Your task to perform on an android device: open app "Cash App" (install if not already installed) Image 0: 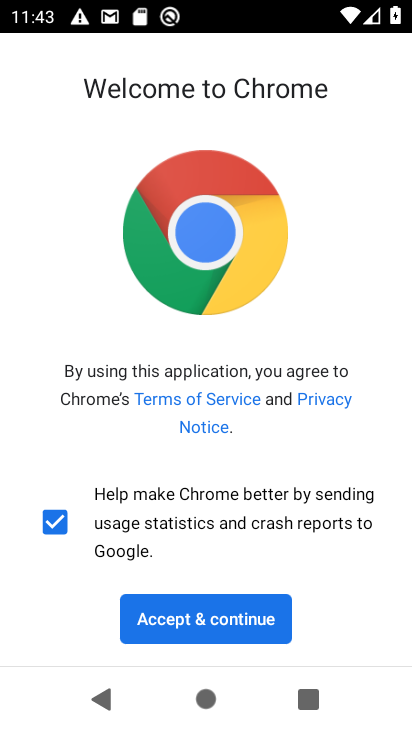
Step 0: press home button
Your task to perform on an android device: open app "Cash App" (install if not already installed) Image 1: 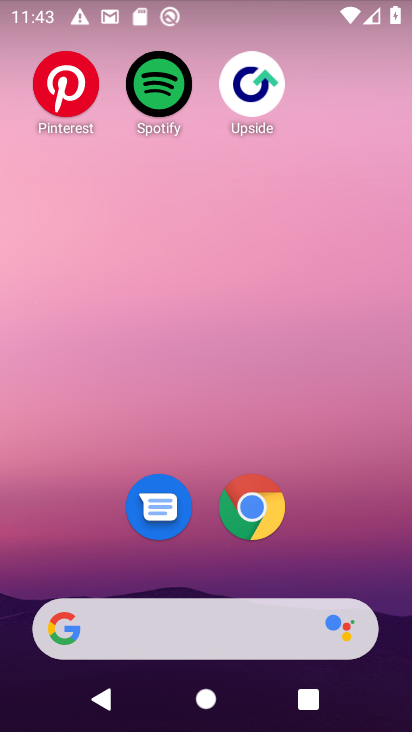
Step 1: drag from (198, 570) to (182, 1)
Your task to perform on an android device: open app "Cash App" (install if not already installed) Image 2: 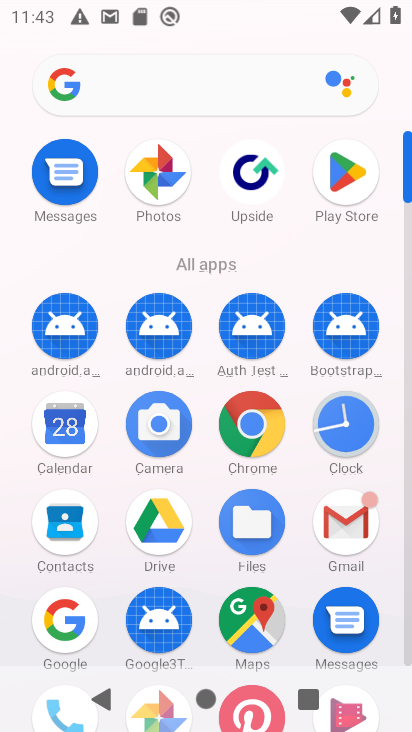
Step 2: click (347, 206)
Your task to perform on an android device: open app "Cash App" (install if not already installed) Image 3: 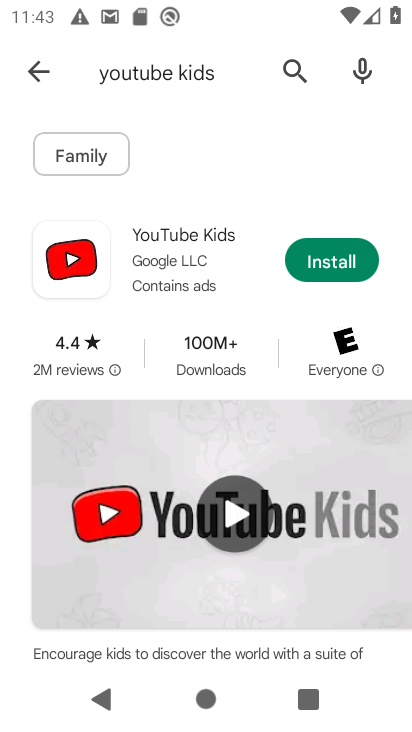
Step 3: click (175, 66)
Your task to perform on an android device: open app "Cash App" (install if not already installed) Image 4: 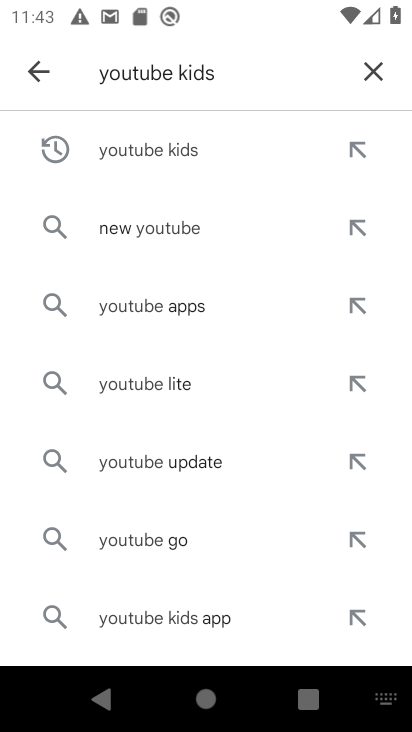
Step 4: click (377, 75)
Your task to perform on an android device: open app "Cash App" (install if not already installed) Image 5: 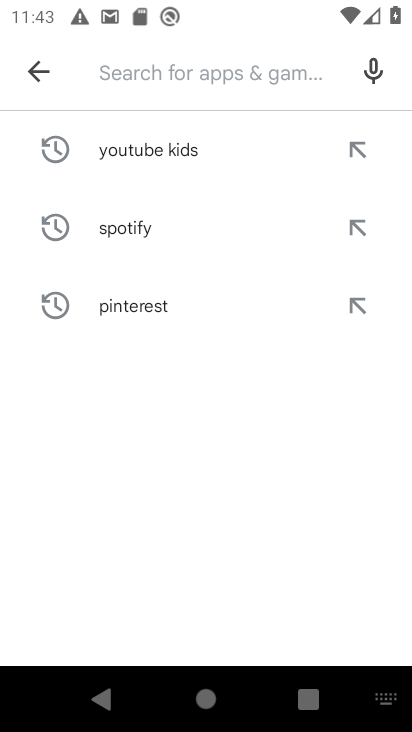
Step 5: type "cash App"
Your task to perform on an android device: open app "Cash App" (install if not already installed) Image 6: 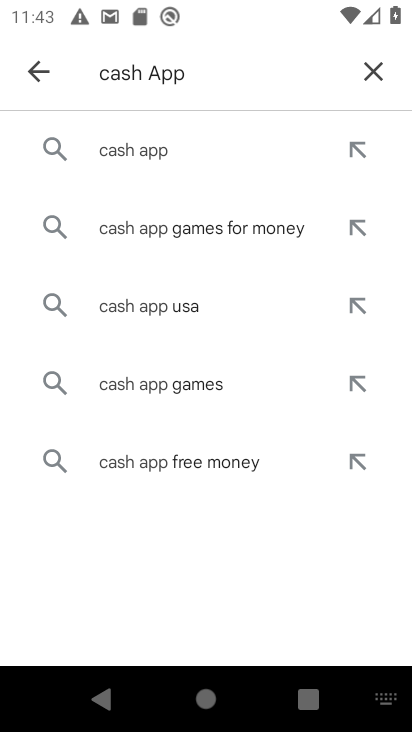
Step 6: click (180, 158)
Your task to perform on an android device: open app "Cash App" (install if not already installed) Image 7: 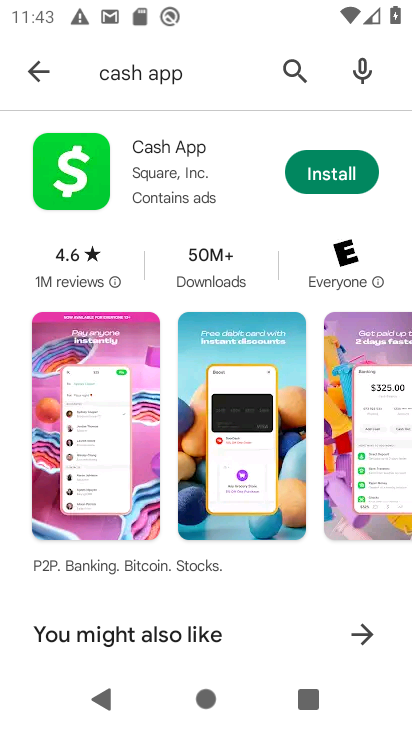
Step 7: click (335, 177)
Your task to perform on an android device: open app "Cash App" (install if not already installed) Image 8: 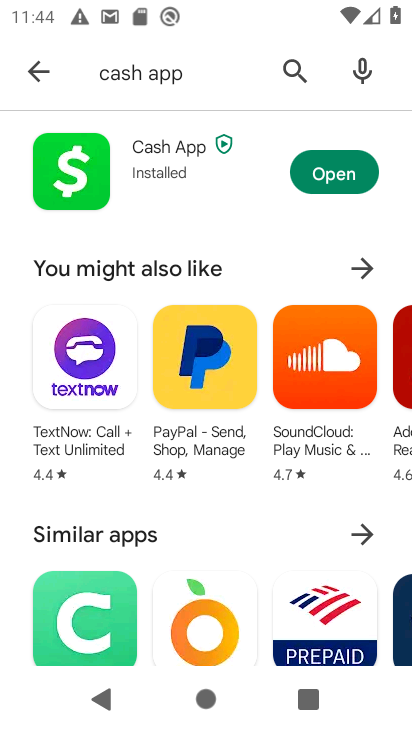
Step 8: click (315, 178)
Your task to perform on an android device: open app "Cash App" (install if not already installed) Image 9: 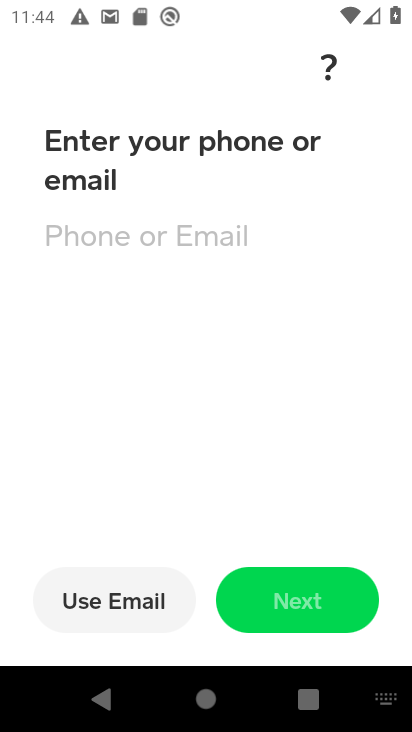
Step 9: task complete